Your task to perform on an android device: Go to battery settings Image 0: 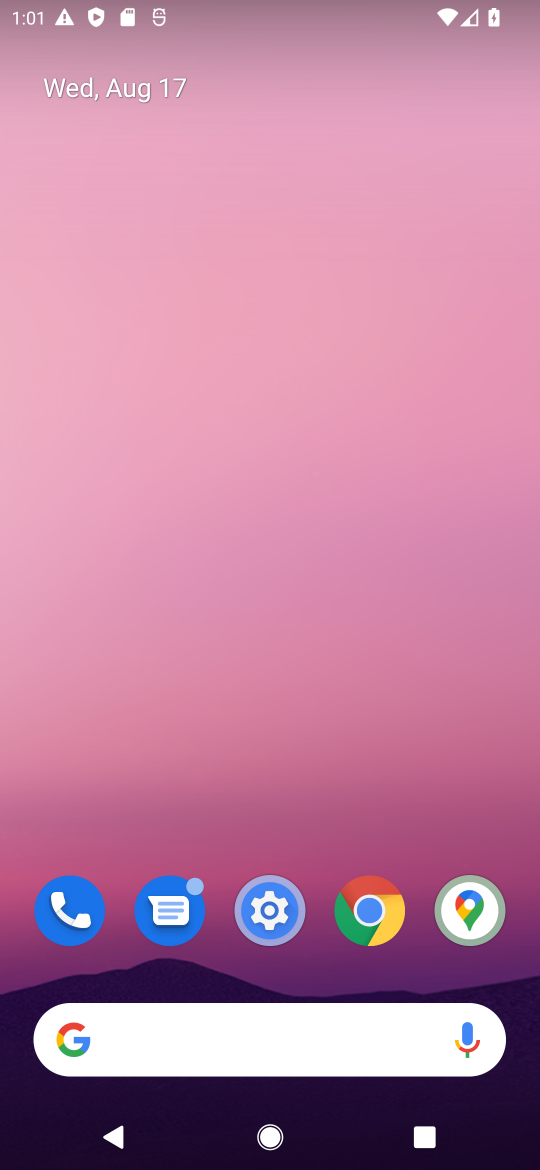
Step 0: click (282, 920)
Your task to perform on an android device: Go to battery settings Image 1: 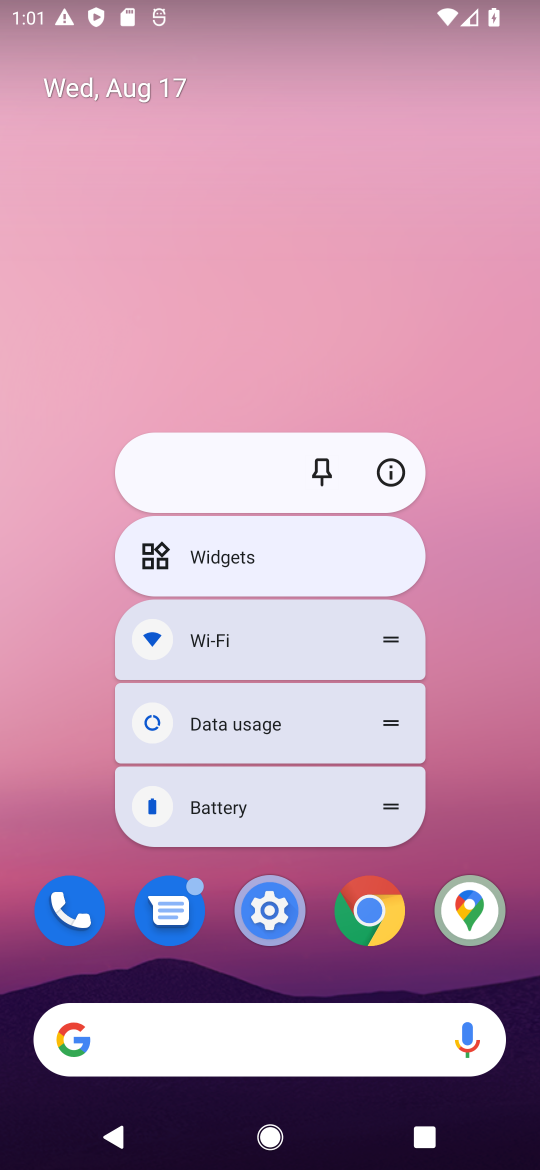
Step 1: click (270, 912)
Your task to perform on an android device: Go to battery settings Image 2: 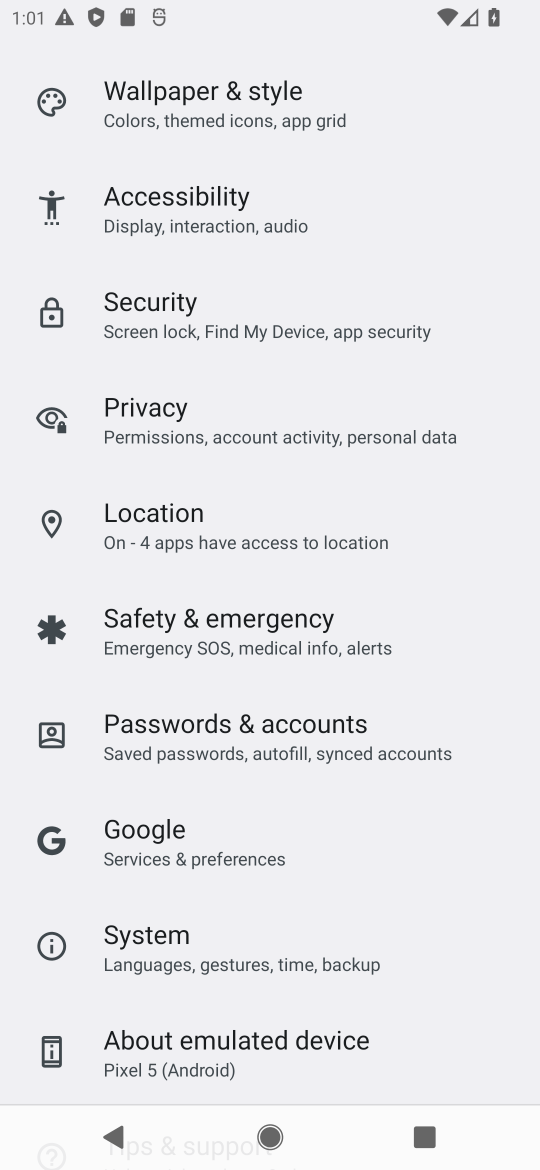
Step 2: drag from (333, 249) to (228, 1093)
Your task to perform on an android device: Go to battery settings Image 3: 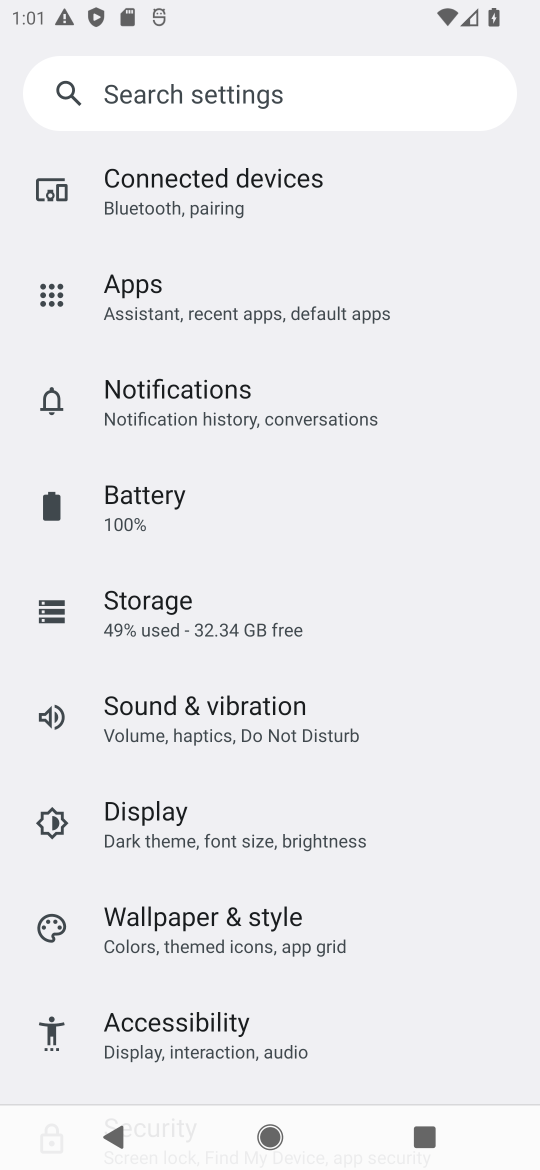
Step 3: click (98, 538)
Your task to perform on an android device: Go to battery settings Image 4: 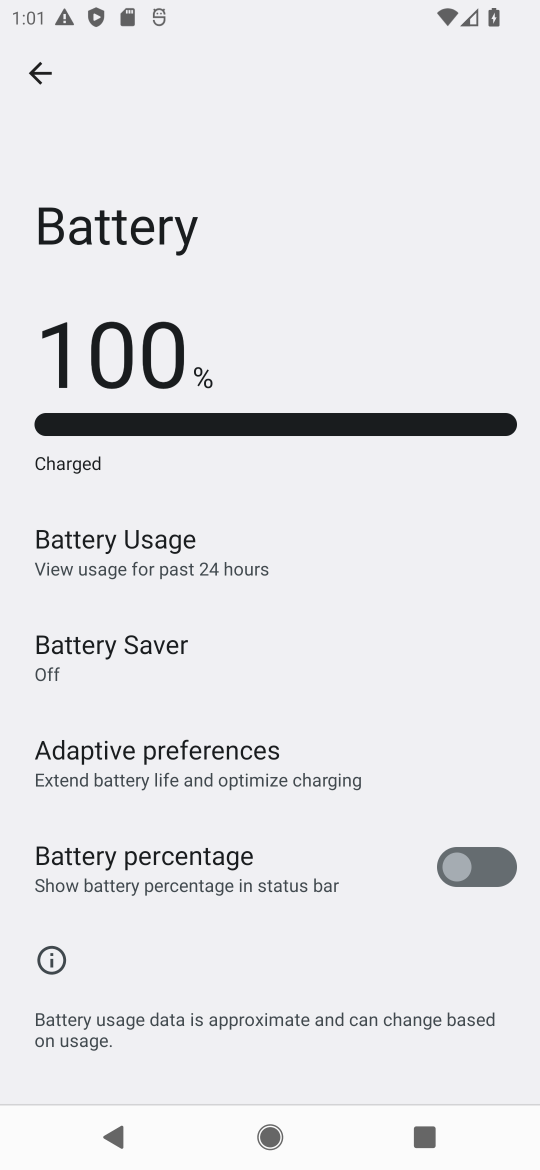
Step 4: task complete